Your task to perform on an android device: Go to Yahoo.com Image 0: 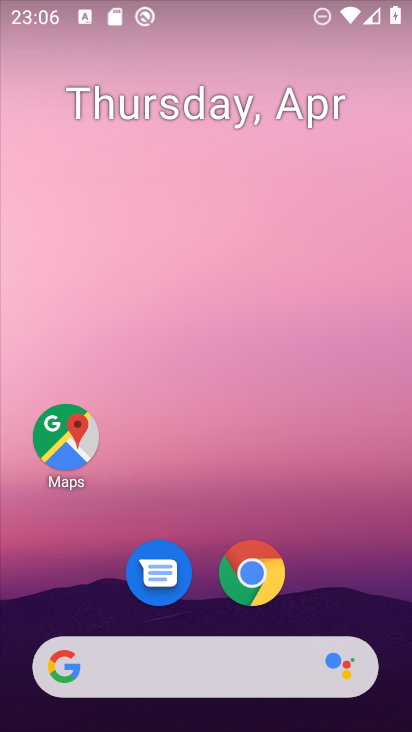
Step 0: drag from (312, 492) to (289, 194)
Your task to perform on an android device: Go to Yahoo.com Image 1: 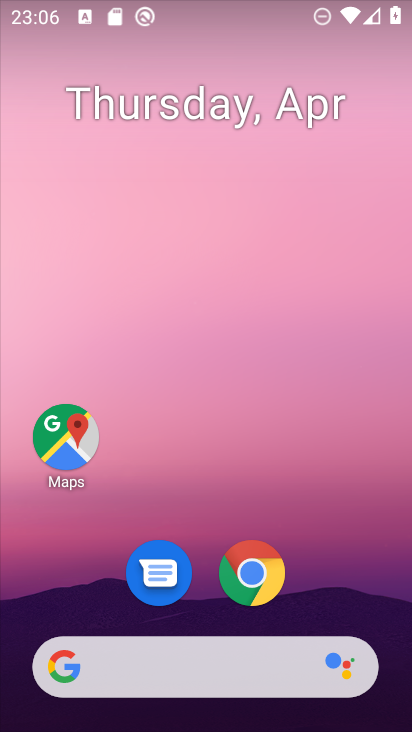
Step 1: drag from (310, 628) to (296, 125)
Your task to perform on an android device: Go to Yahoo.com Image 2: 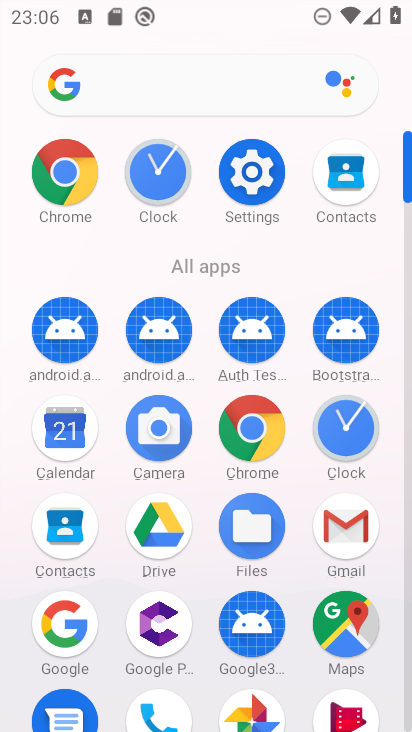
Step 2: click (252, 424)
Your task to perform on an android device: Go to Yahoo.com Image 3: 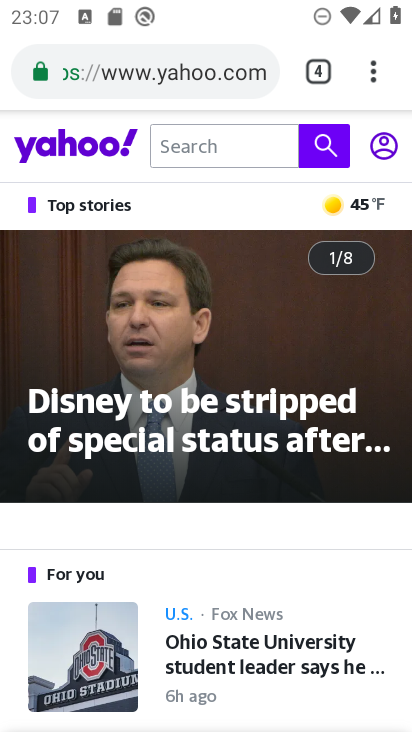
Step 3: task complete